Your task to perform on an android device: Do I have any events today? Image 0: 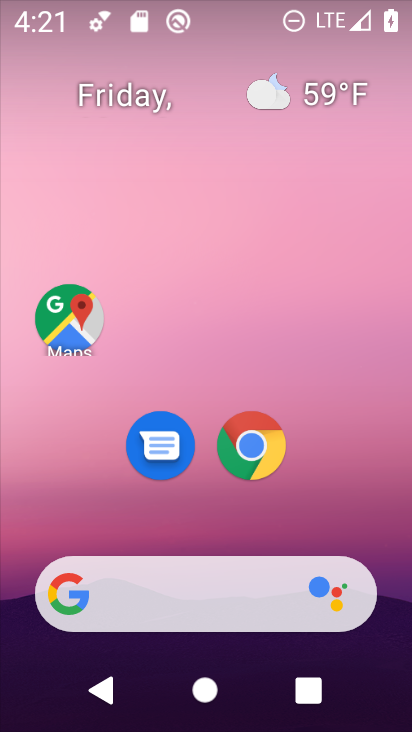
Step 0: drag from (404, 613) to (361, 136)
Your task to perform on an android device: Do I have any events today? Image 1: 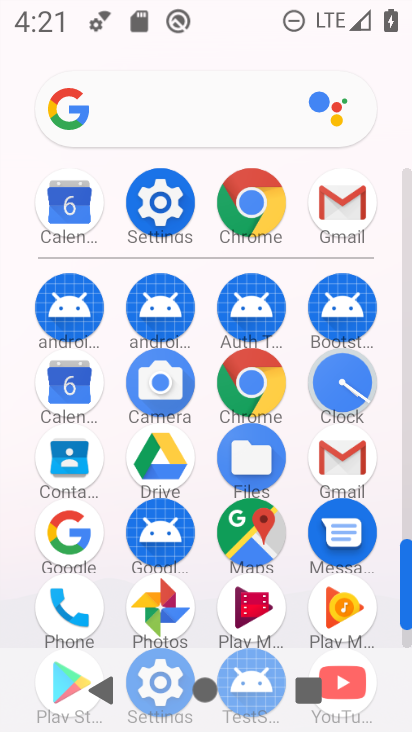
Step 1: click (73, 384)
Your task to perform on an android device: Do I have any events today? Image 2: 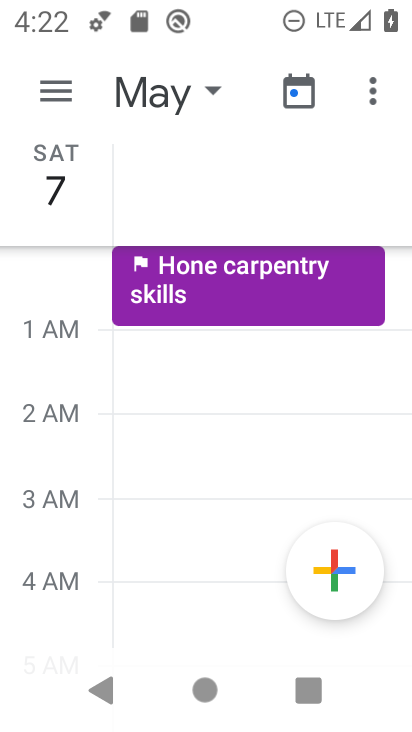
Step 2: click (47, 93)
Your task to perform on an android device: Do I have any events today? Image 3: 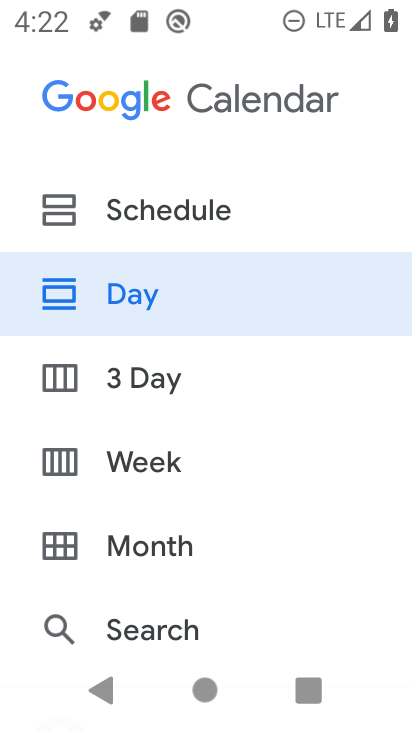
Step 3: click (138, 284)
Your task to perform on an android device: Do I have any events today? Image 4: 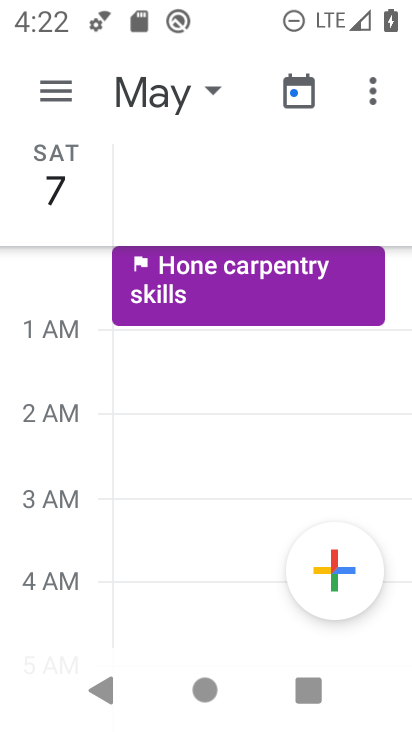
Step 4: click (204, 80)
Your task to perform on an android device: Do I have any events today? Image 5: 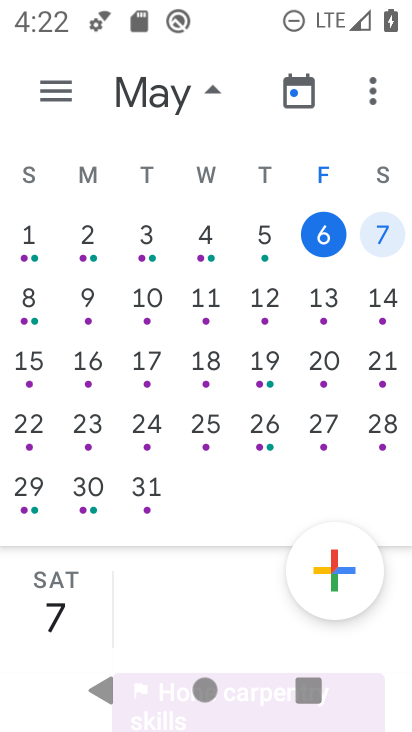
Step 5: click (331, 232)
Your task to perform on an android device: Do I have any events today? Image 6: 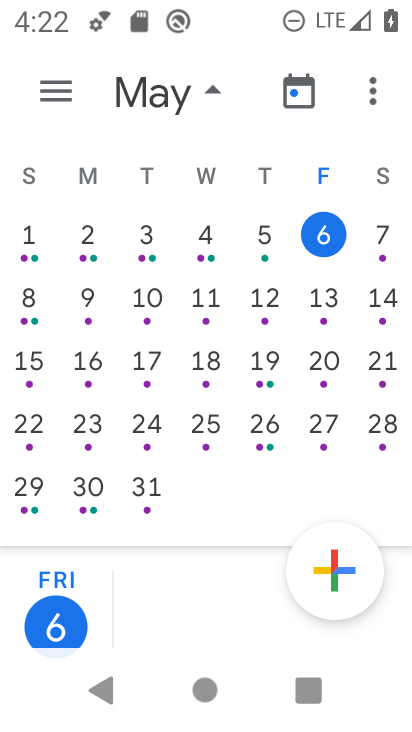
Step 6: task complete